Your task to perform on an android device: Open Youtube and go to the subscriptions tab Image 0: 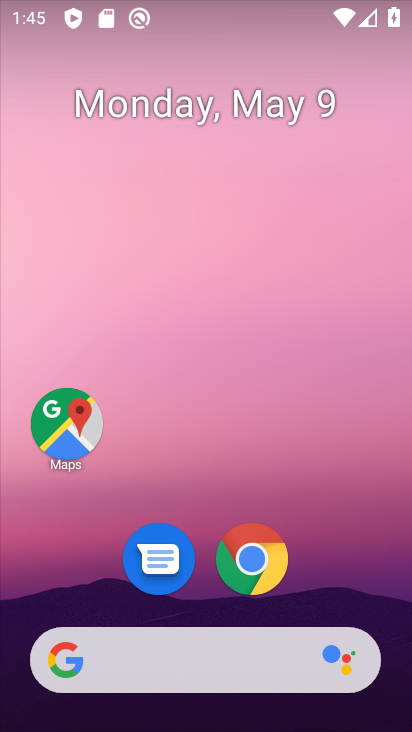
Step 0: drag from (401, 523) to (323, 54)
Your task to perform on an android device: Open Youtube and go to the subscriptions tab Image 1: 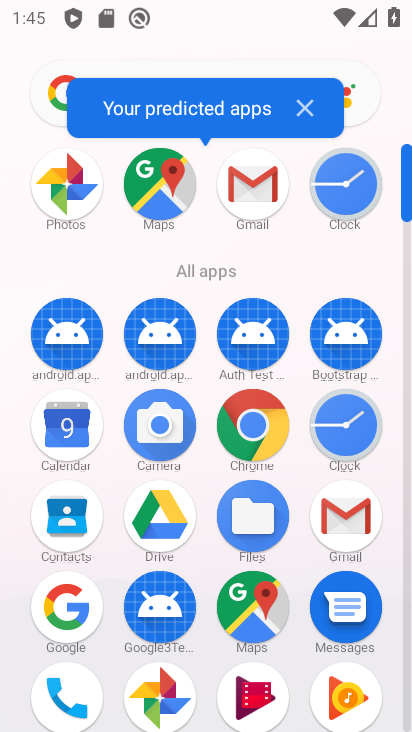
Step 1: drag from (304, 537) to (290, 323)
Your task to perform on an android device: Open Youtube and go to the subscriptions tab Image 2: 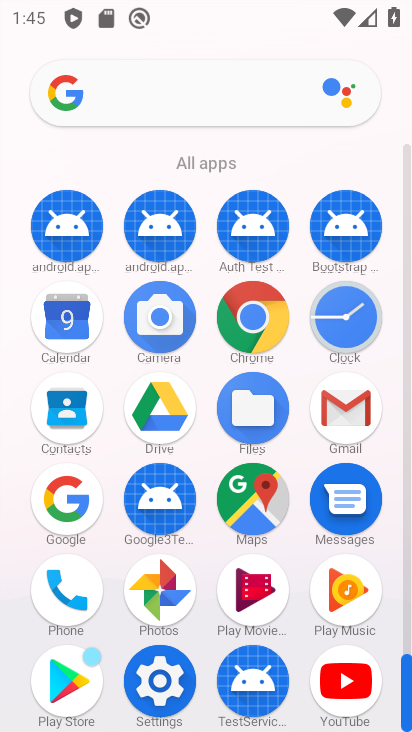
Step 2: click (339, 707)
Your task to perform on an android device: Open Youtube and go to the subscriptions tab Image 3: 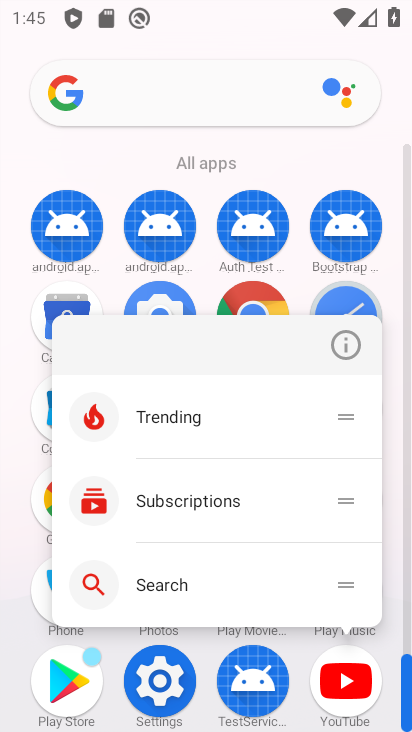
Step 3: click (337, 672)
Your task to perform on an android device: Open Youtube and go to the subscriptions tab Image 4: 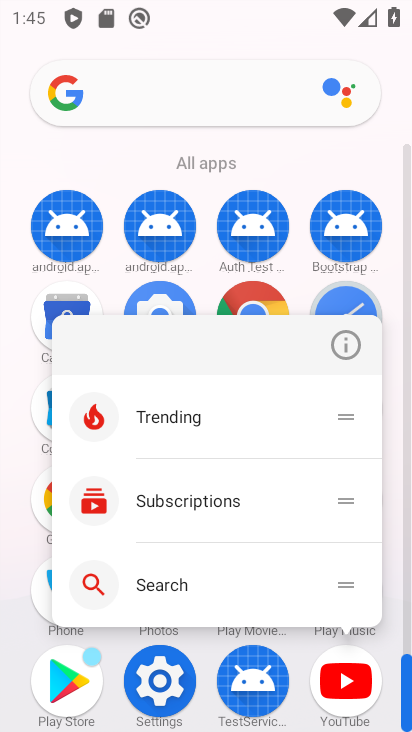
Step 4: click (337, 672)
Your task to perform on an android device: Open Youtube and go to the subscriptions tab Image 5: 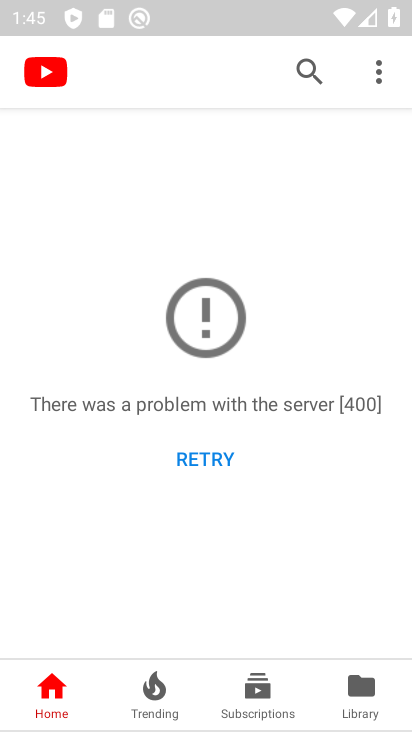
Step 5: click (256, 696)
Your task to perform on an android device: Open Youtube and go to the subscriptions tab Image 6: 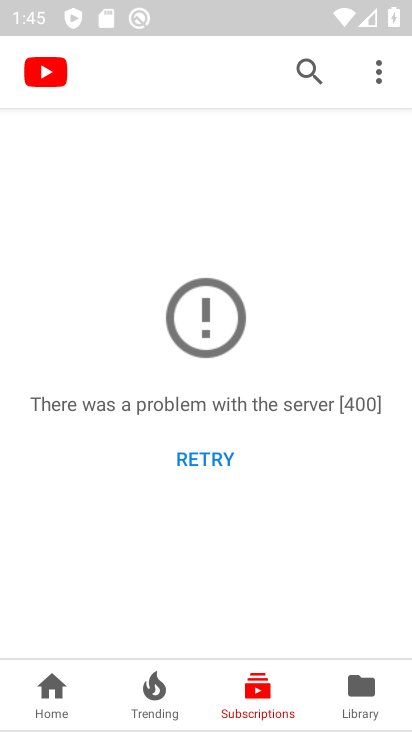
Step 6: task complete